Your task to perform on an android device: allow cookies in the chrome app Image 0: 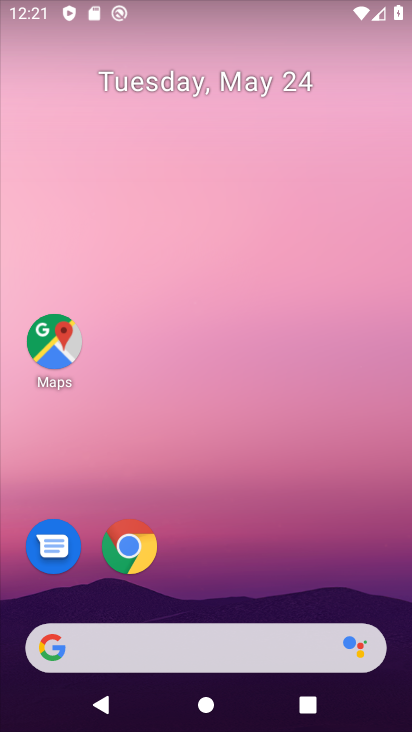
Step 0: drag from (283, 665) to (298, 51)
Your task to perform on an android device: allow cookies in the chrome app Image 1: 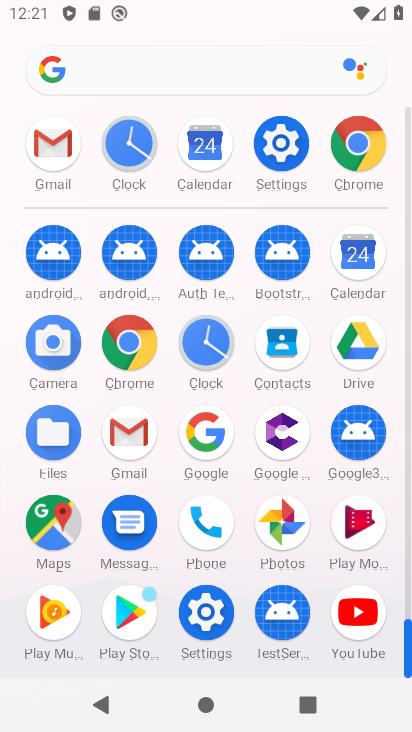
Step 1: click (160, 344)
Your task to perform on an android device: allow cookies in the chrome app Image 2: 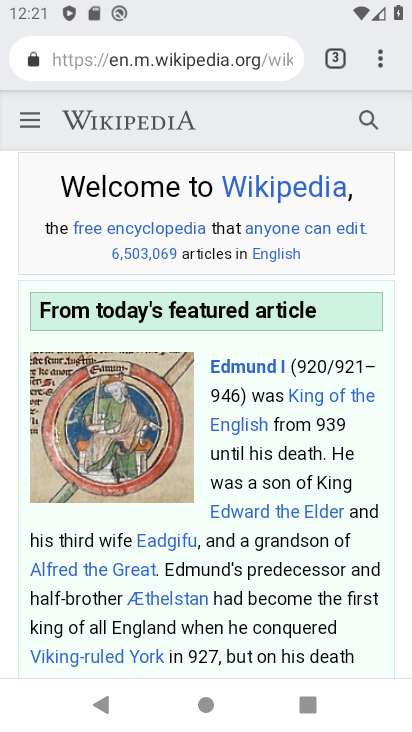
Step 2: click (373, 60)
Your task to perform on an android device: allow cookies in the chrome app Image 3: 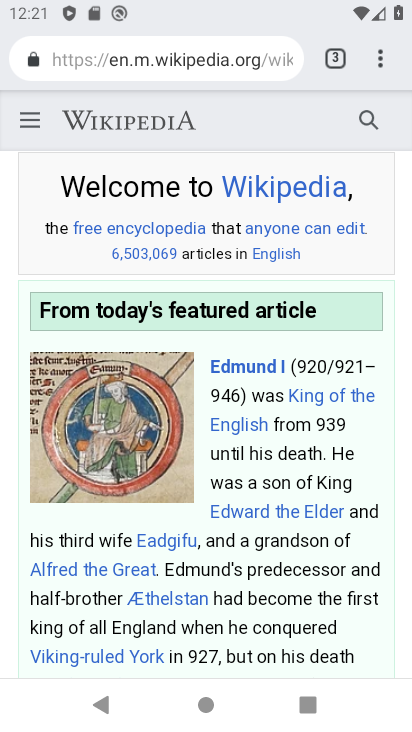
Step 3: drag from (382, 59) to (235, 571)
Your task to perform on an android device: allow cookies in the chrome app Image 4: 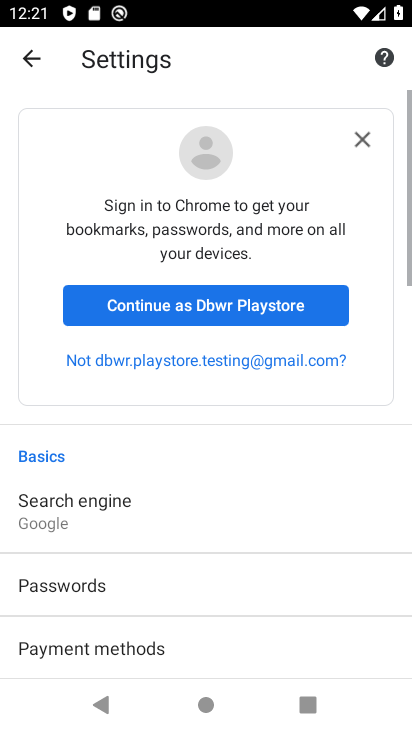
Step 4: drag from (210, 593) to (275, 48)
Your task to perform on an android device: allow cookies in the chrome app Image 5: 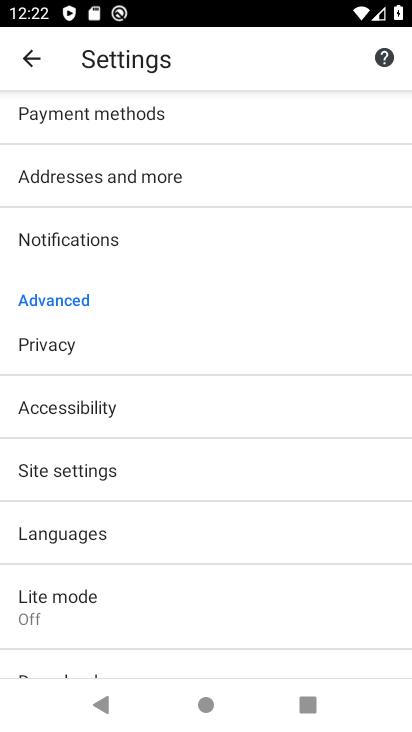
Step 5: click (135, 484)
Your task to perform on an android device: allow cookies in the chrome app Image 6: 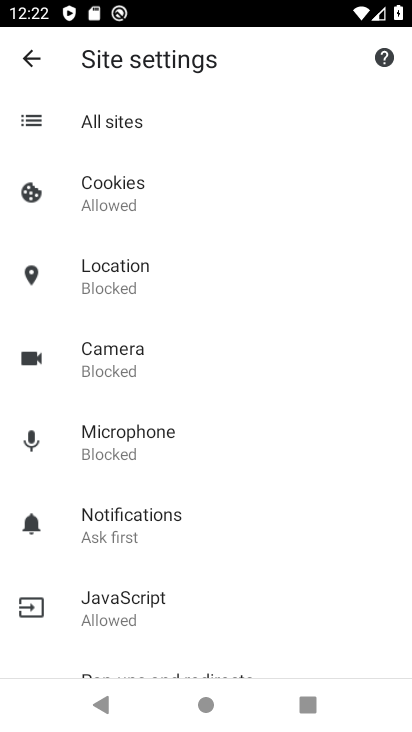
Step 6: click (157, 196)
Your task to perform on an android device: allow cookies in the chrome app Image 7: 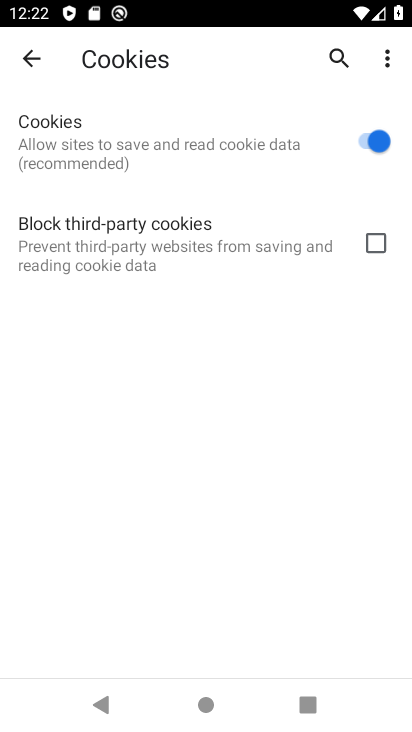
Step 7: task complete